Your task to perform on an android device: Search for Mexican restaurants on Maps Image 0: 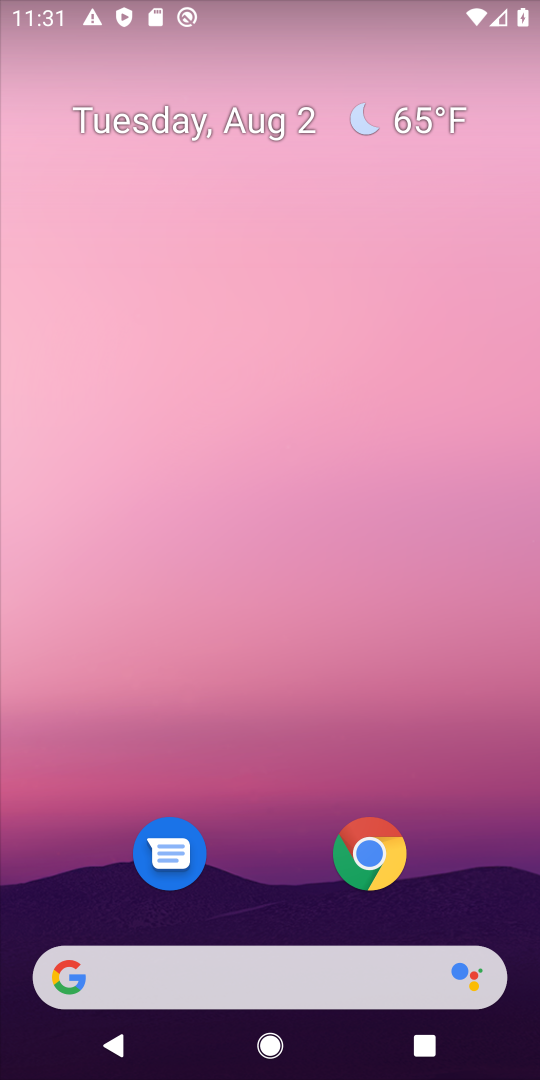
Step 0: press home button
Your task to perform on an android device: Search for Mexican restaurants on Maps Image 1: 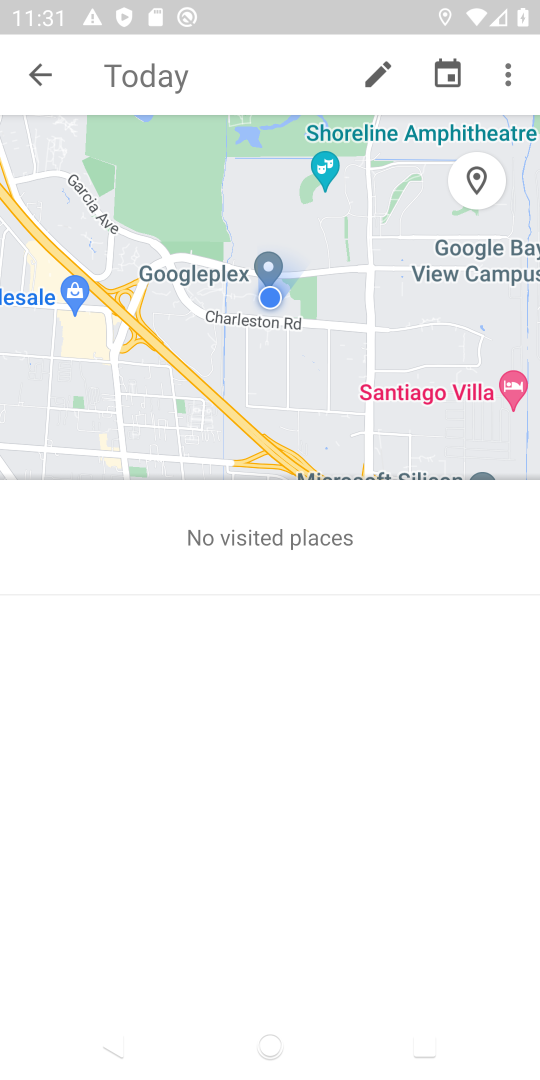
Step 1: press home button
Your task to perform on an android device: Search for Mexican restaurants on Maps Image 2: 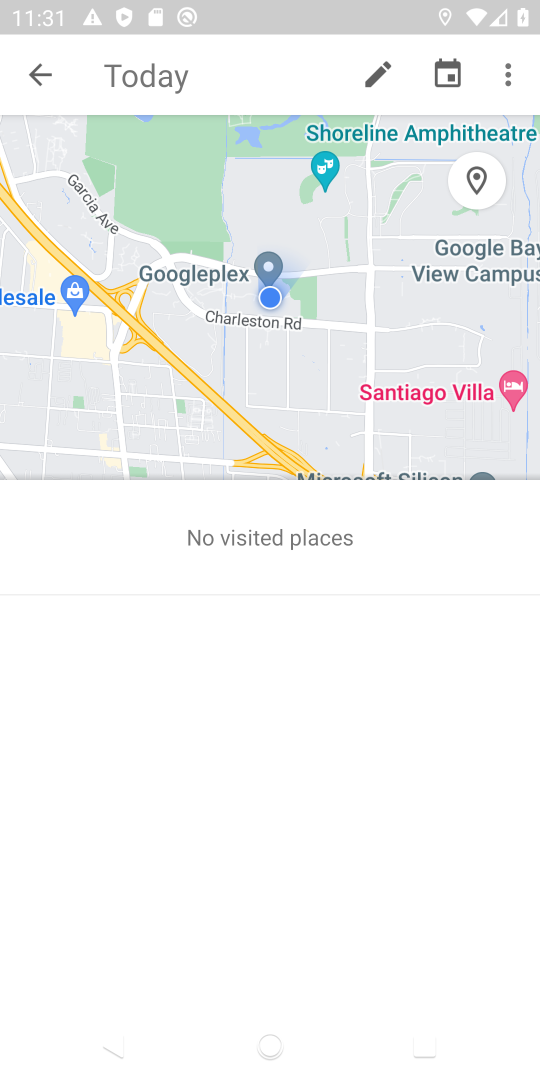
Step 2: click (443, 7)
Your task to perform on an android device: Search for Mexican restaurants on Maps Image 3: 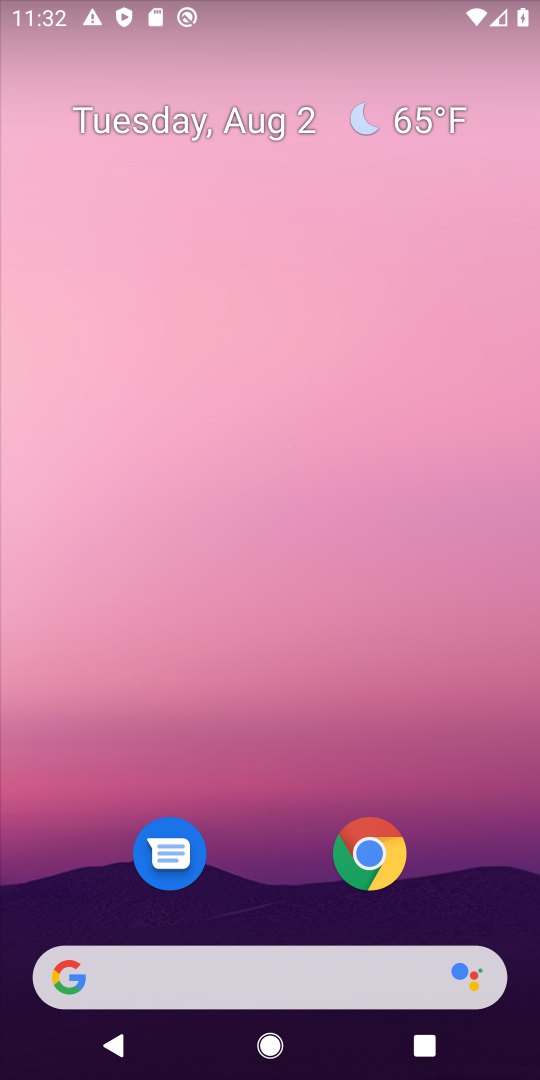
Step 3: press home button
Your task to perform on an android device: Search for Mexican restaurants on Maps Image 4: 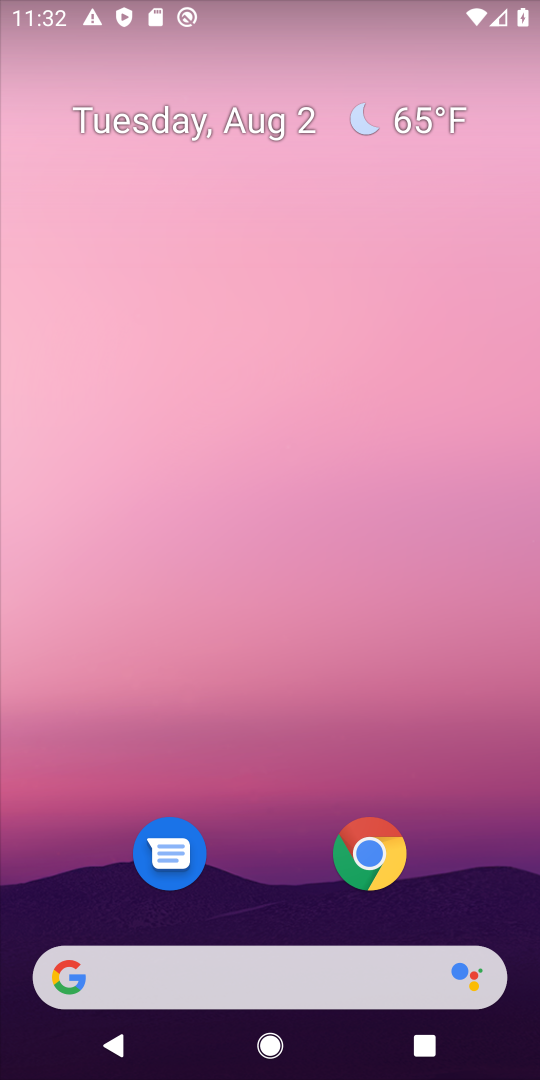
Step 4: press home button
Your task to perform on an android device: Search for Mexican restaurants on Maps Image 5: 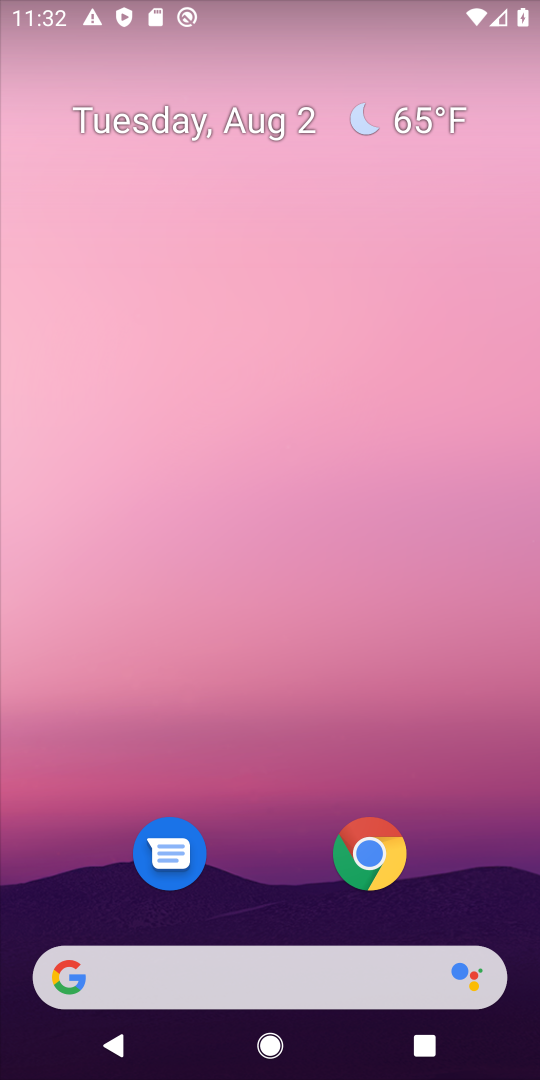
Step 5: drag from (298, 902) to (371, 130)
Your task to perform on an android device: Search for Mexican restaurants on Maps Image 6: 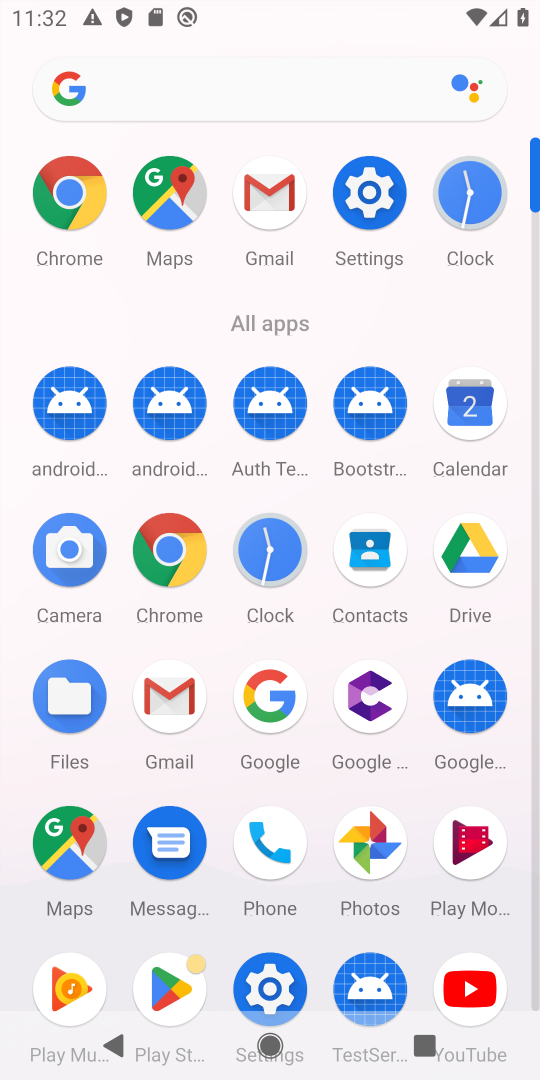
Step 6: click (175, 204)
Your task to perform on an android device: Search for Mexican restaurants on Maps Image 7: 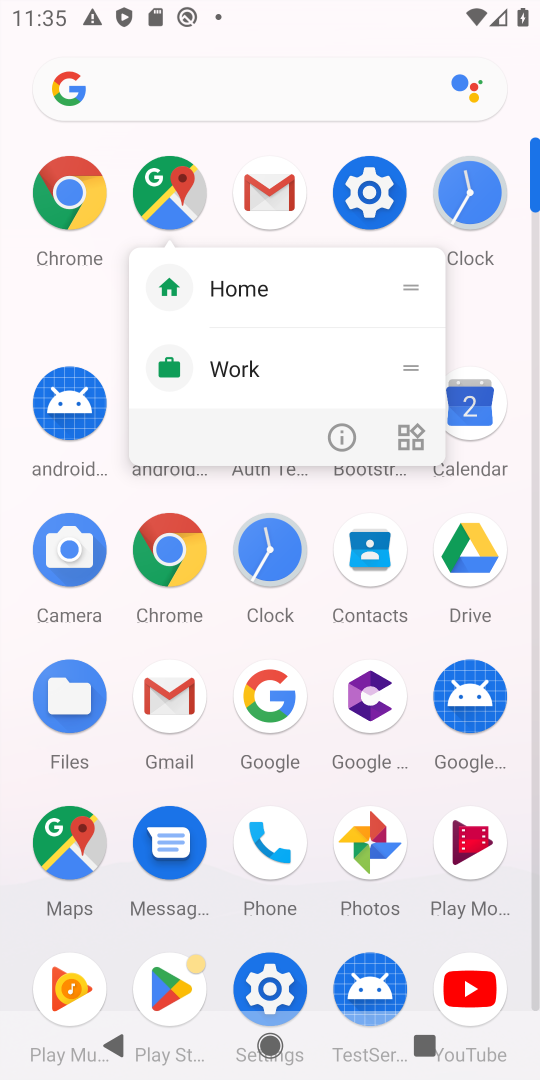
Step 7: click (169, 175)
Your task to perform on an android device: Search for Mexican restaurants on Maps Image 8: 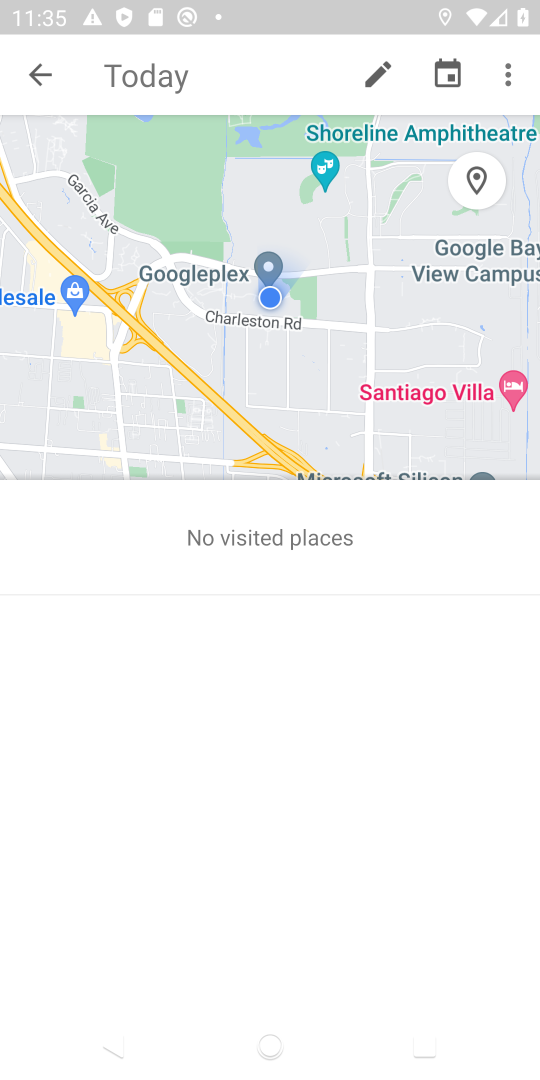
Step 8: click (44, 67)
Your task to perform on an android device: Search for Mexican restaurants on Maps Image 9: 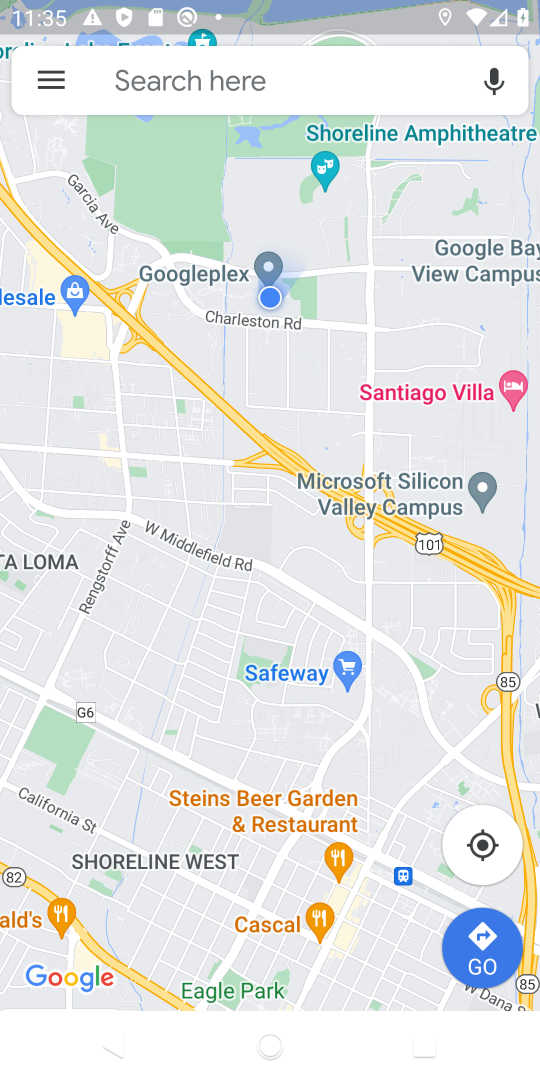
Step 9: click (182, 66)
Your task to perform on an android device: Search for Mexican restaurants on Maps Image 10: 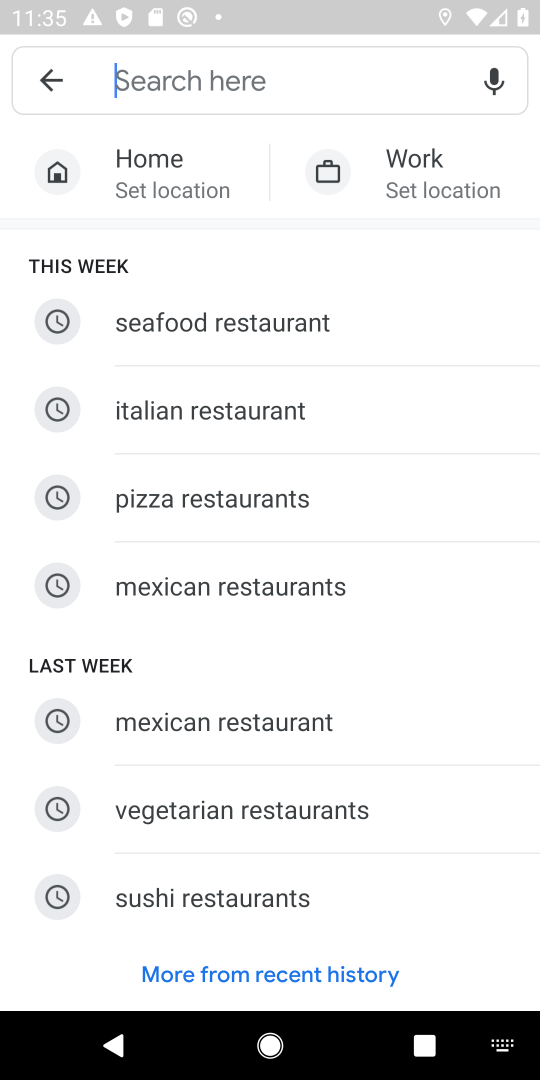
Step 10: type "Mexican restaurants"
Your task to perform on an android device: Search for Mexican restaurants on Maps Image 11: 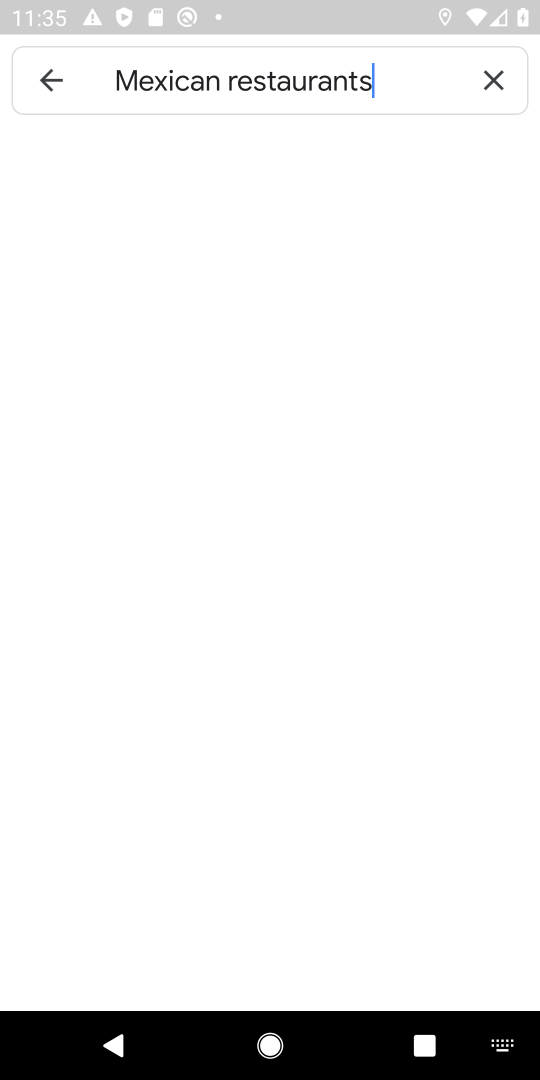
Step 11: type ""
Your task to perform on an android device: Search for Mexican restaurants on Maps Image 12: 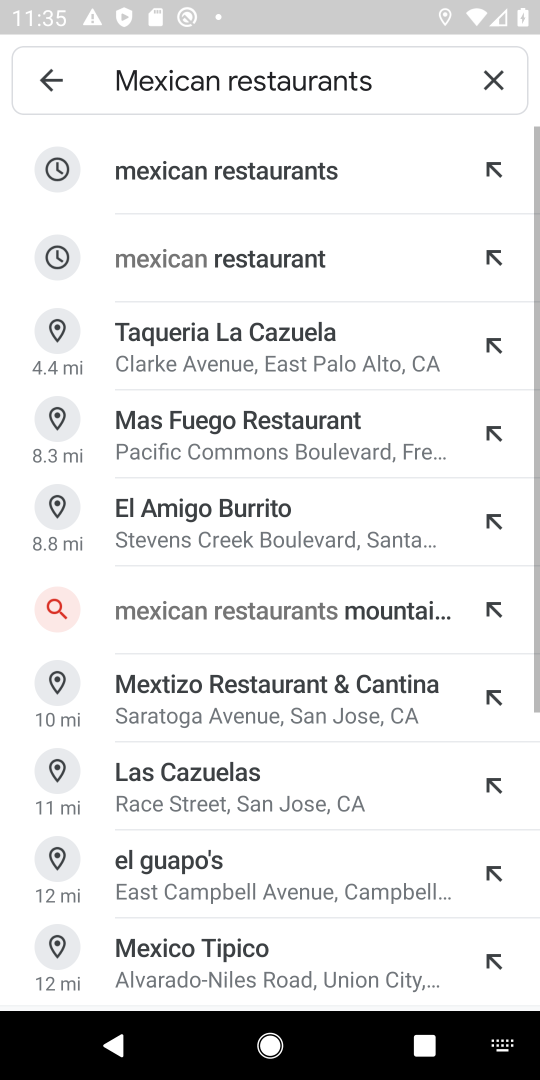
Step 12: click (174, 154)
Your task to perform on an android device: Search for Mexican restaurants on Maps Image 13: 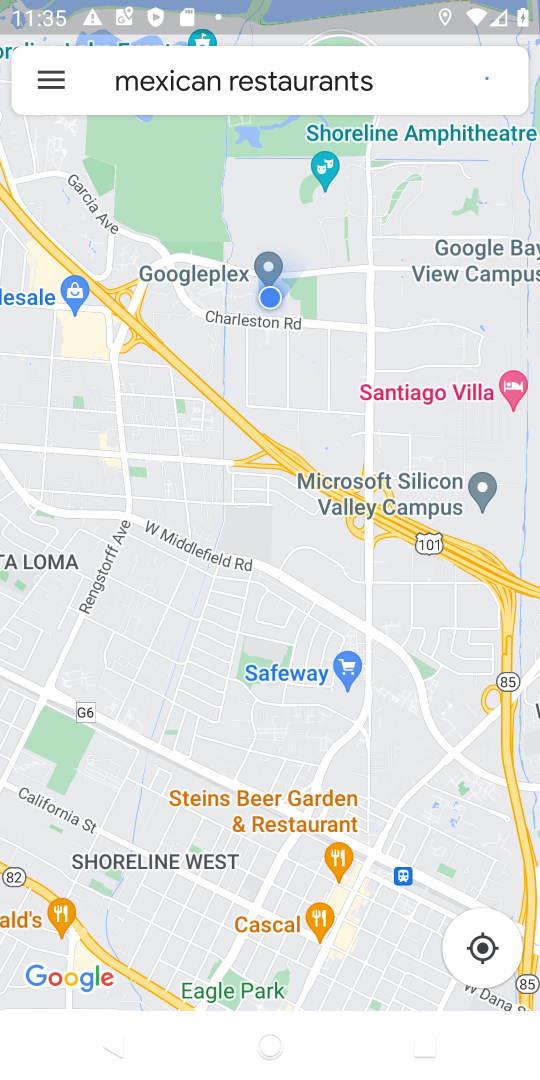
Step 13: task complete